Your task to perform on an android device: Open maps Image 0: 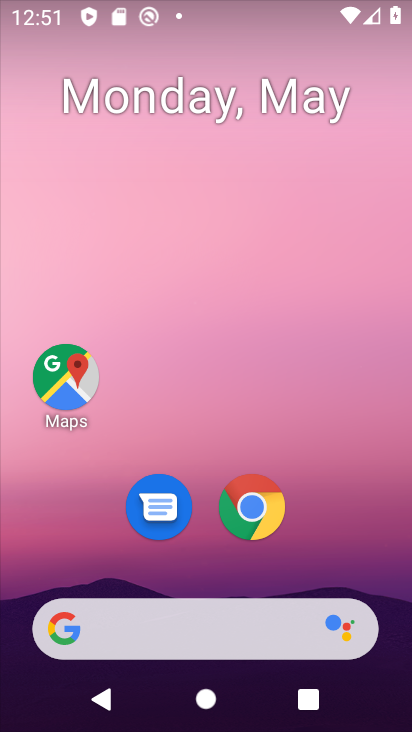
Step 0: click (69, 370)
Your task to perform on an android device: Open maps Image 1: 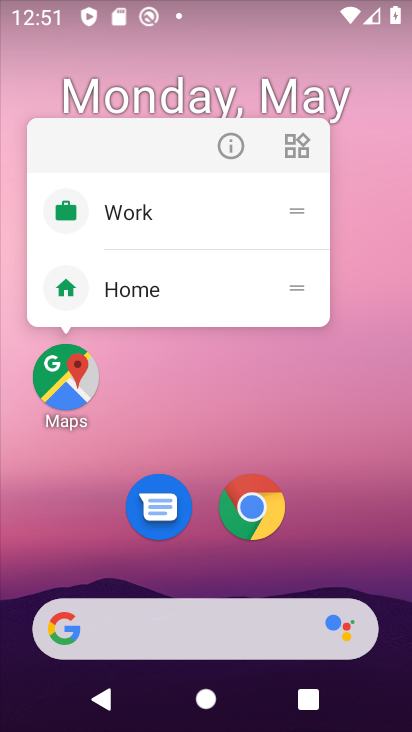
Step 1: click (61, 391)
Your task to perform on an android device: Open maps Image 2: 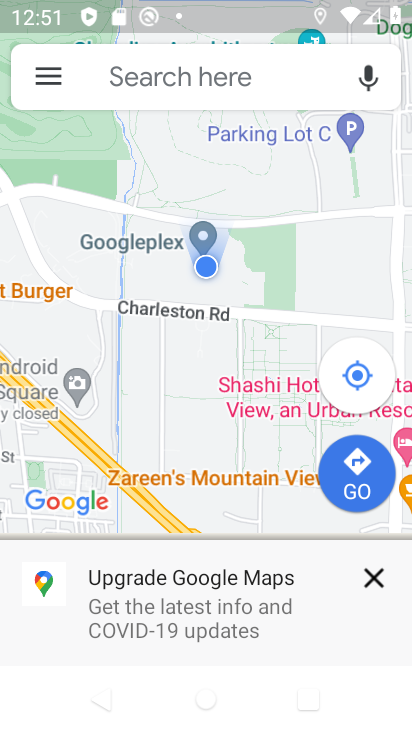
Step 2: task complete